Your task to perform on an android device: Search for the best way to get rid of a cold Image 0: 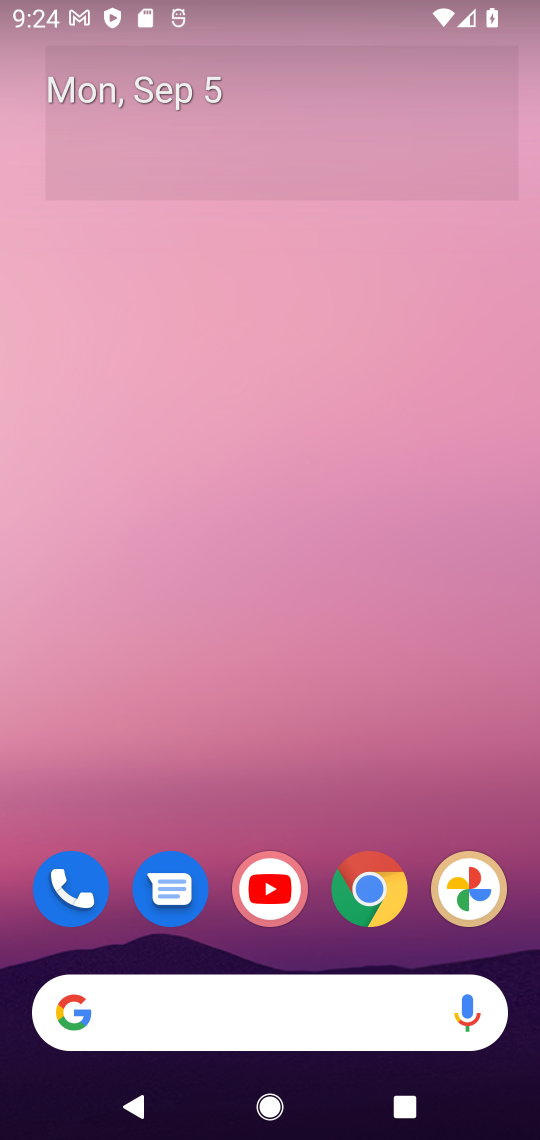
Step 0: click (296, 1013)
Your task to perform on an android device: Search for the best way to get rid of a cold Image 1: 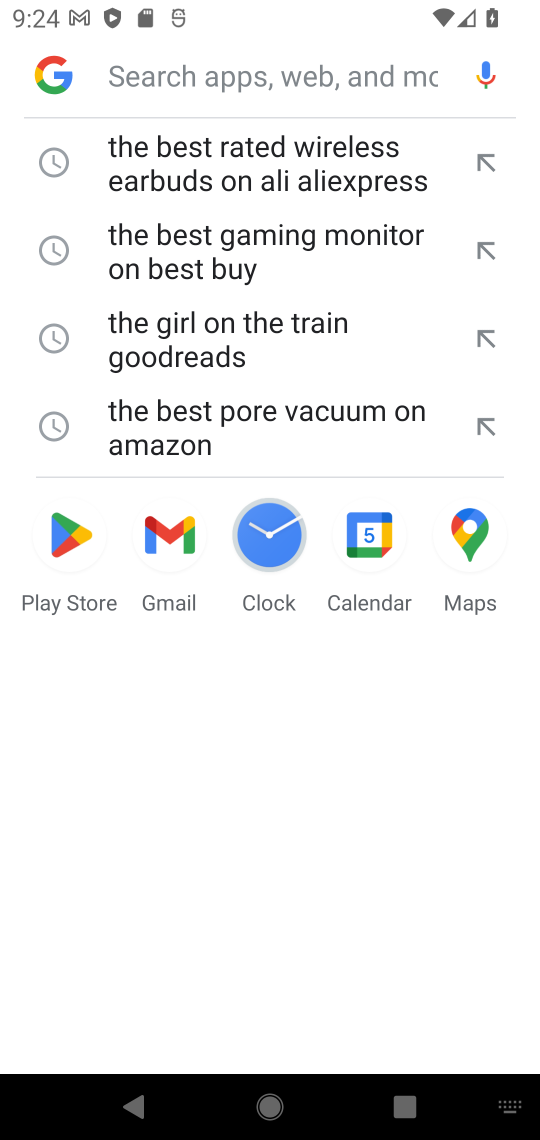
Step 1: type " the best way to get rid of a cold"
Your task to perform on an android device: Search for the best way to get rid of a cold Image 2: 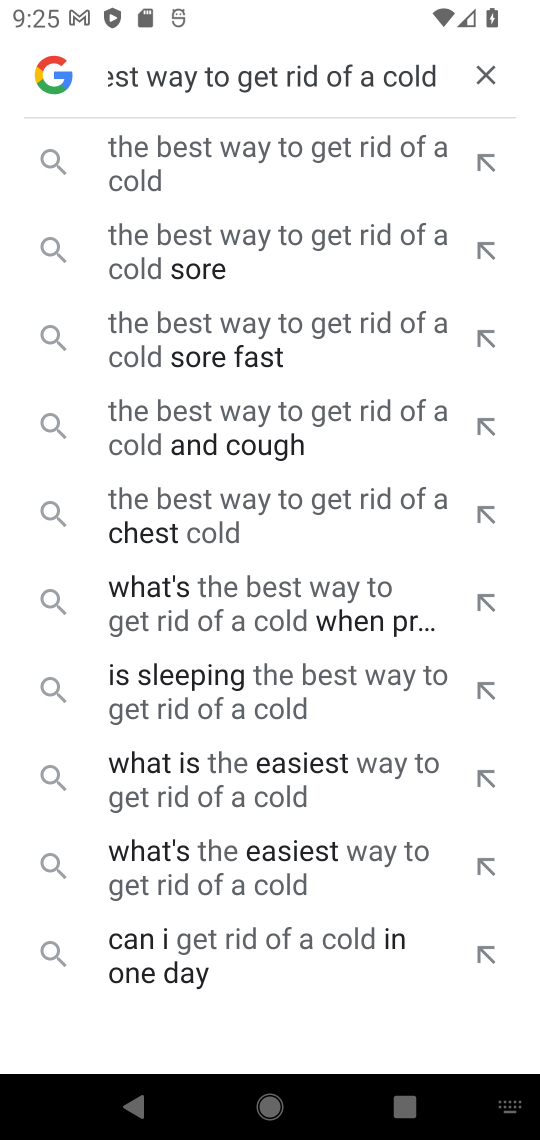
Step 2: click (204, 158)
Your task to perform on an android device: Search for the best way to get rid of a cold Image 3: 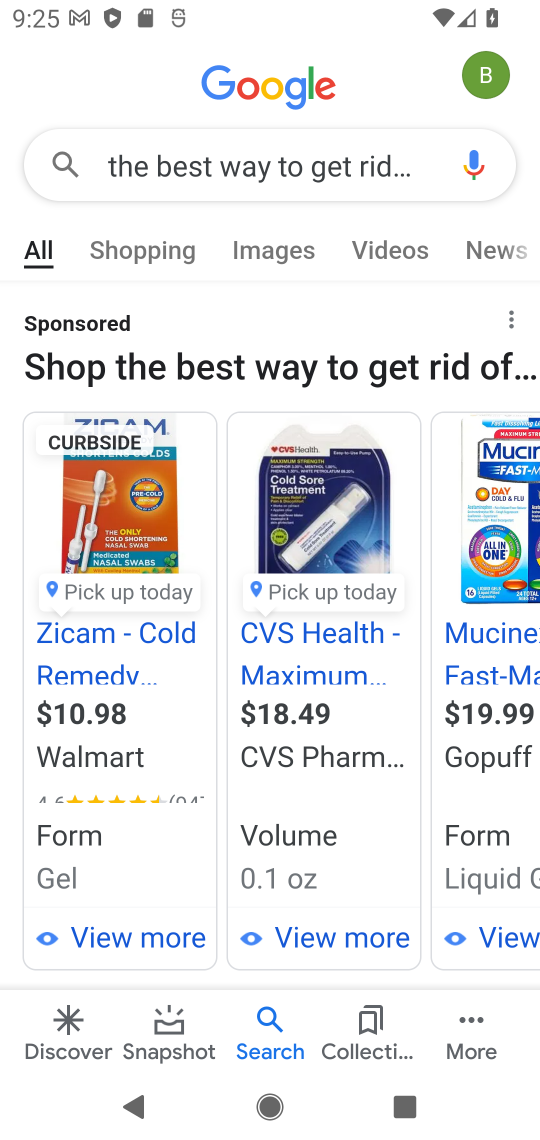
Step 3: task complete